Your task to perform on an android device: check storage Image 0: 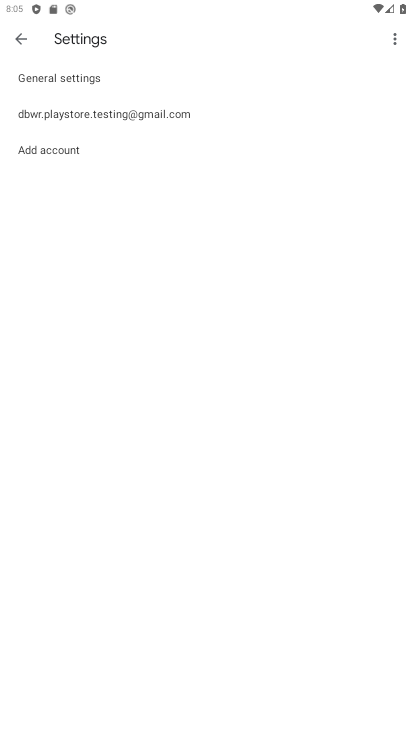
Step 0: press home button
Your task to perform on an android device: check storage Image 1: 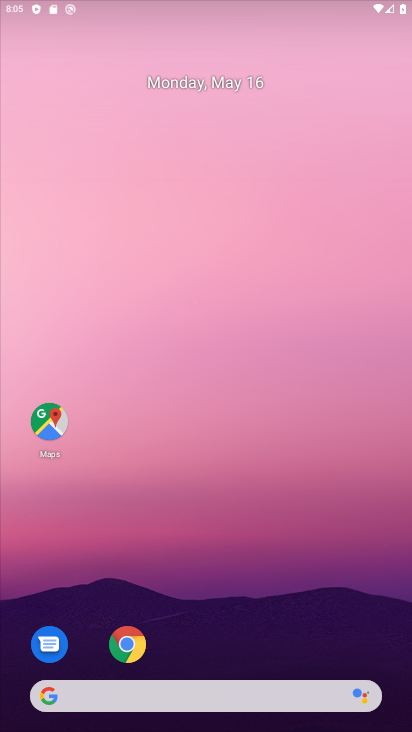
Step 1: drag from (296, 725) to (257, 165)
Your task to perform on an android device: check storage Image 2: 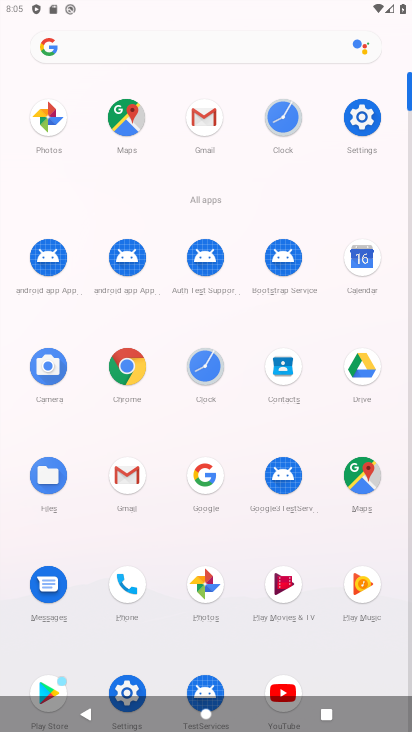
Step 2: click (369, 111)
Your task to perform on an android device: check storage Image 3: 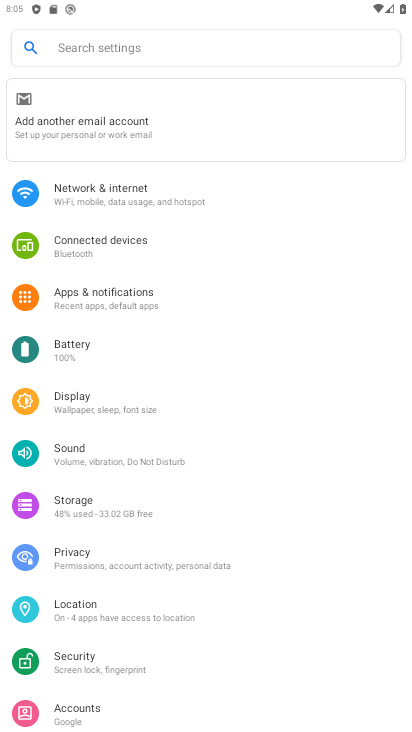
Step 3: click (176, 517)
Your task to perform on an android device: check storage Image 4: 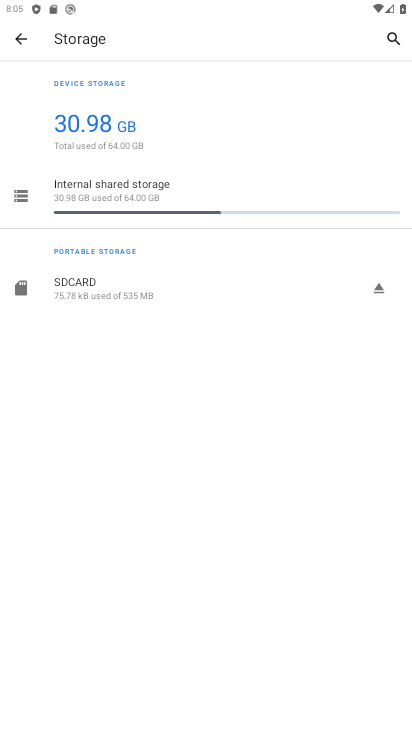
Step 4: click (200, 116)
Your task to perform on an android device: check storage Image 5: 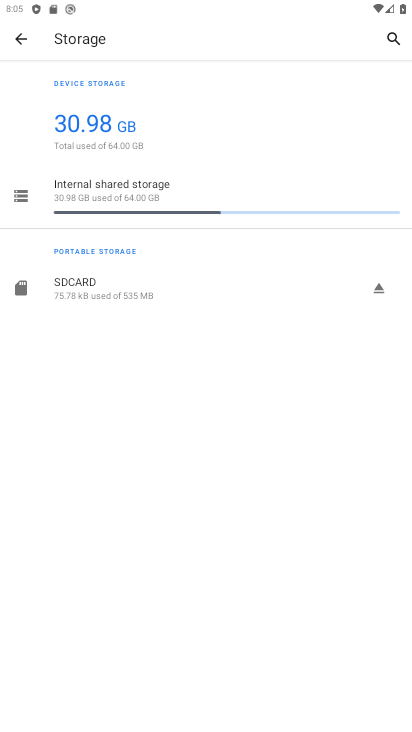
Step 5: click (149, 128)
Your task to perform on an android device: check storage Image 6: 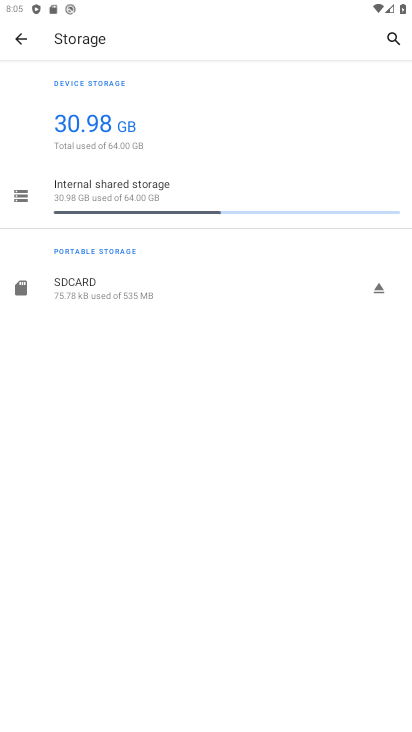
Step 6: click (165, 206)
Your task to perform on an android device: check storage Image 7: 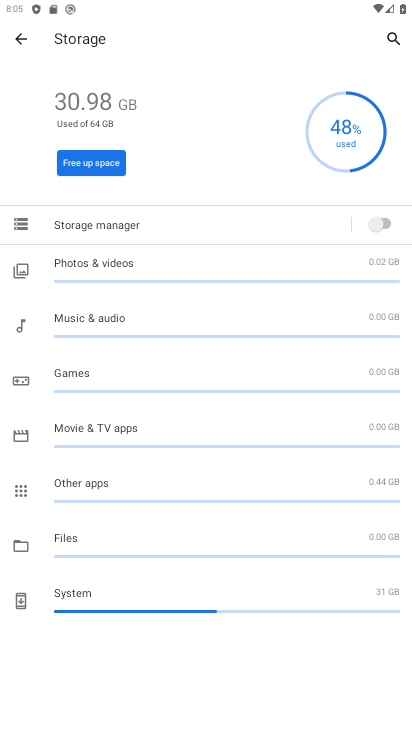
Step 7: press back button
Your task to perform on an android device: check storage Image 8: 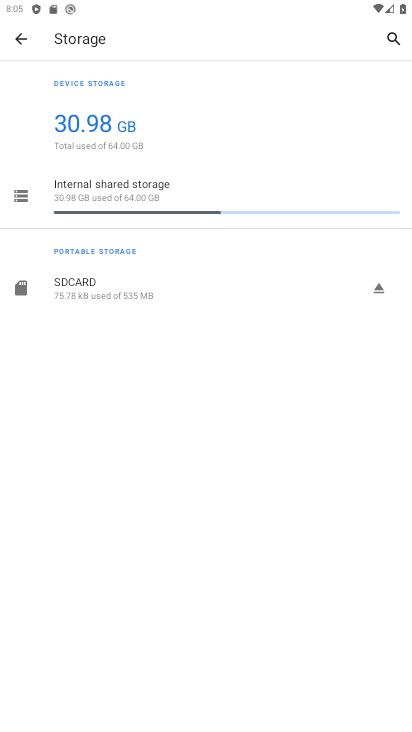
Step 8: click (213, 276)
Your task to perform on an android device: check storage Image 9: 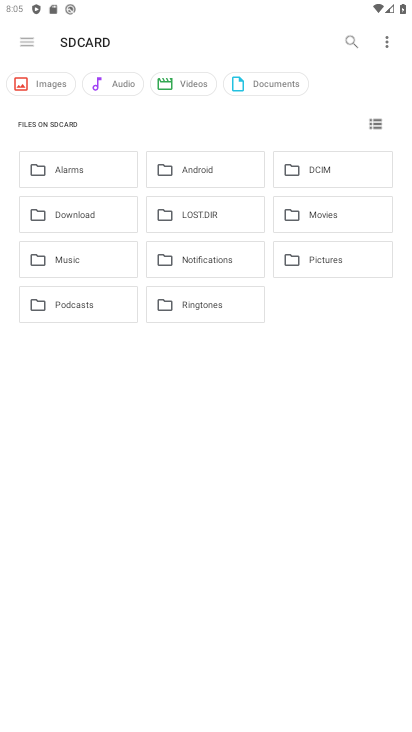
Step 9: task complete